Your task to perform on an android device: turn on the 24-hour format for clock Image 0: 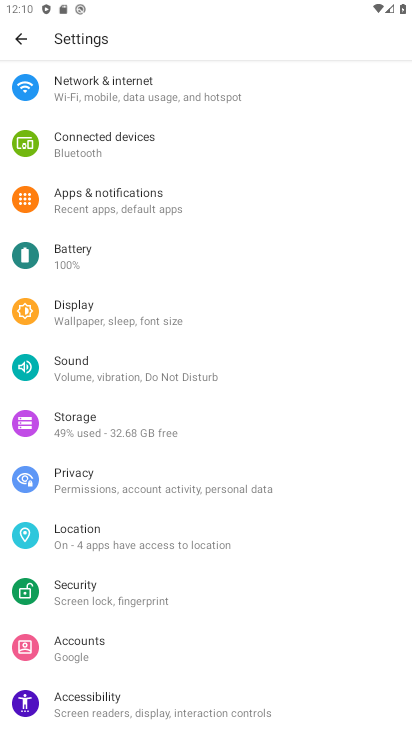
Step 0: press back button
Your task to perform on an android device: turn on the 24-hour format for clock Image 1: 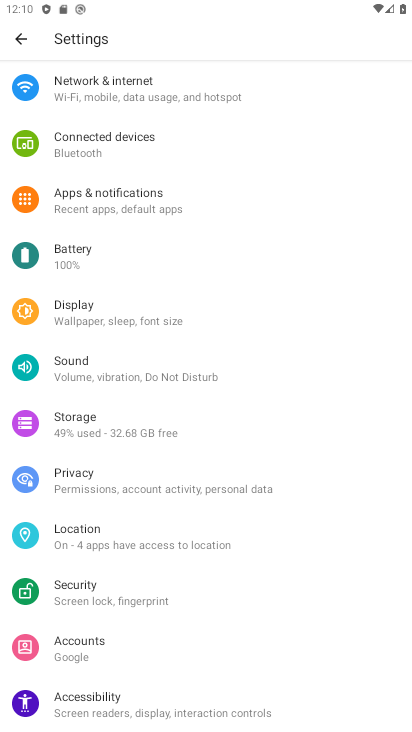
Step 1: press back button
Your task to perform on an android device: turn on the 24-hour format for clock Image 2: 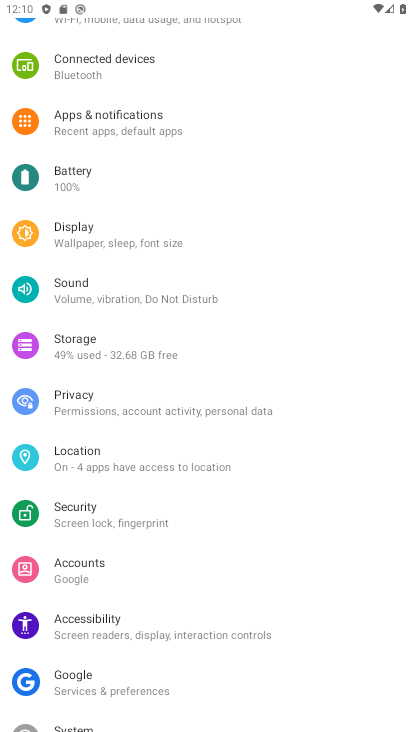
Step 2: press home button
Your task to perform on an android device: turn on the 24-hour format for clock Image 3: 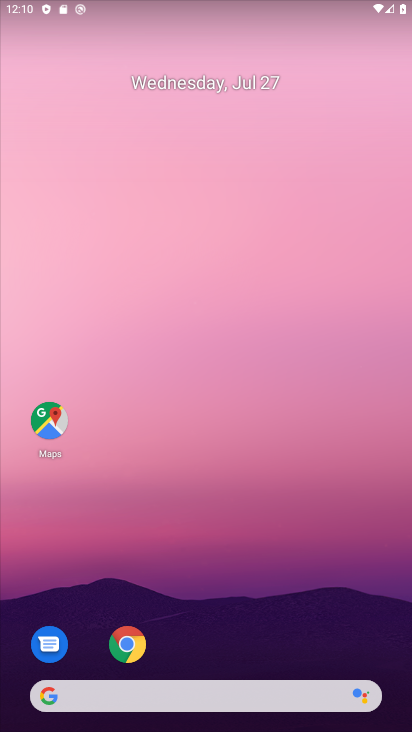
Step 3: drag from (276, 668) to (260, 242)
Your task to perform on an android device: turn on the 24-hour format for clock Image 4: 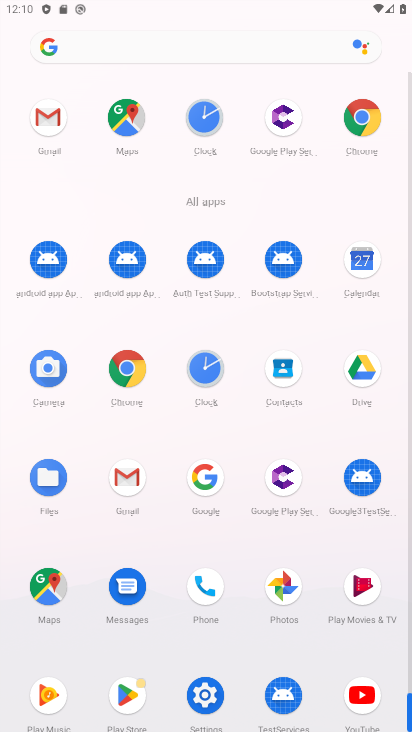
Step 4: click (248, 212)
Your task to perform on an android device: turn on the 24-hour format for clock Image 5: 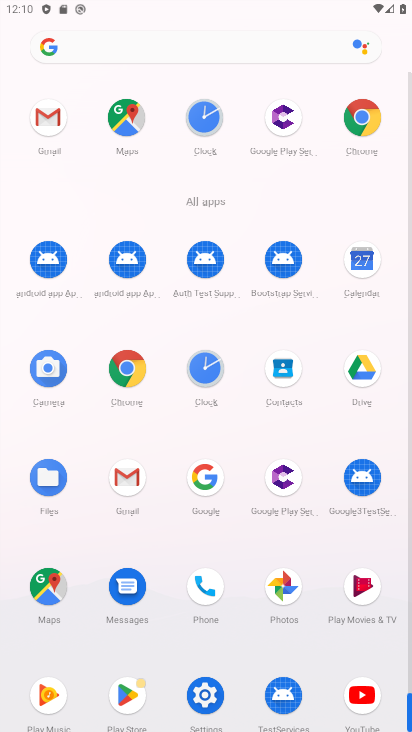
Step 5: click (295, 200)
Your task to perform on an android device: turn on the 24-hour format for clock Image 6: 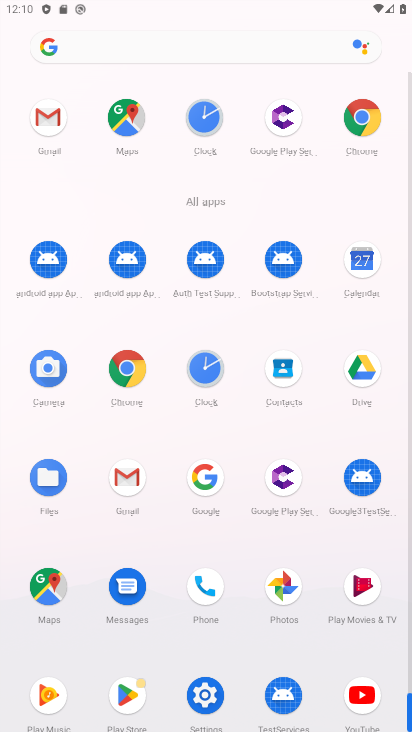
Step 6: click (260, 355)
Your task to perform on an android device: turn on the 24-hour format for clock Image 7: 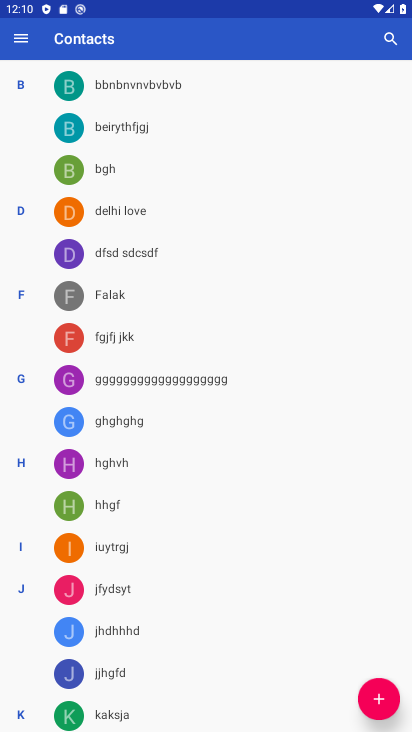
Step 7: press back button
Your task to perform on an android device: turn on the 24-hour format for clock Image 8: 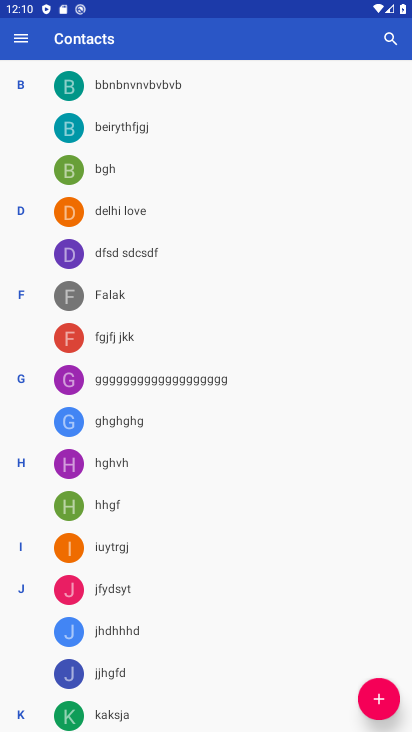
Step 8: press back button
Your task to perform on an android device: turn on the 24-hour format for clock Image 9: 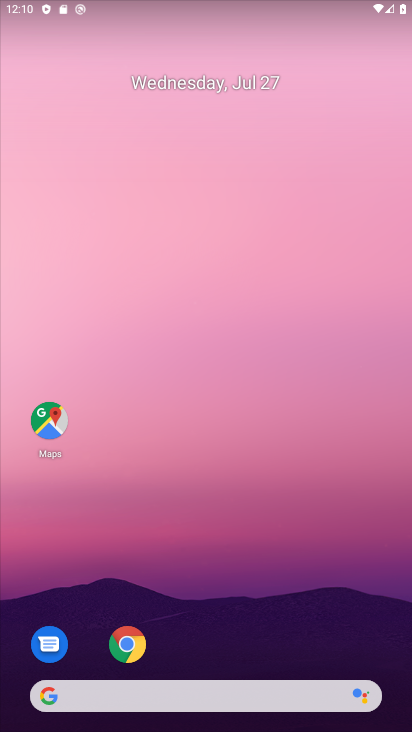
Step 9: drag from (275, 540) to (257, 104)
Your task to perform on an android device: turn on the 24-hour format for clock Image 10: 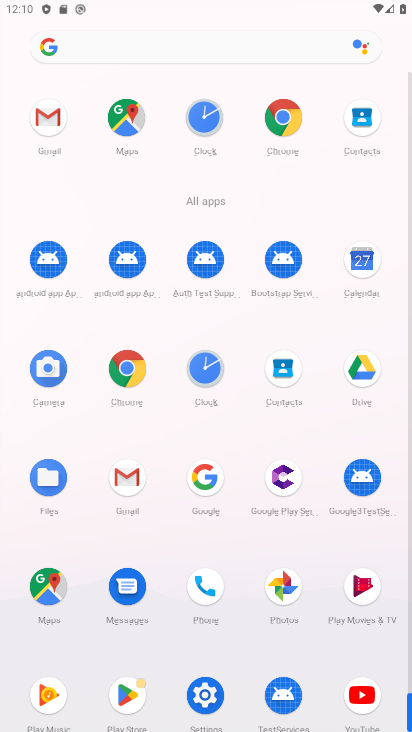
Step 10: drag from (270, 410) to (259, 195)
Your task to perform on an android device: turn on the 24-hour format for clock Image 11: 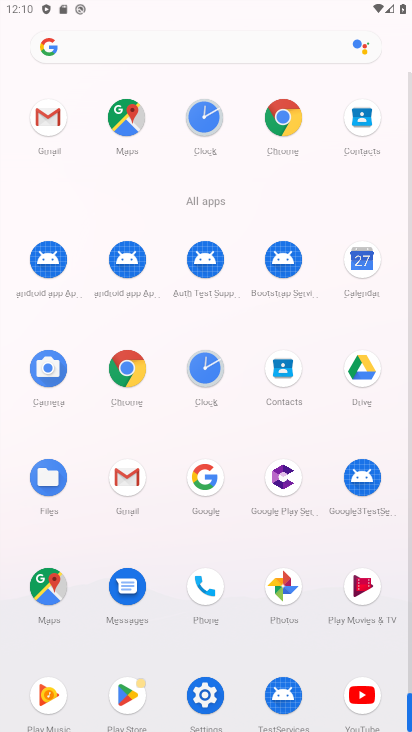
Step 11: click (211, 357)
Your task to perform on an android device: turn on the 24-hour format for clock Image 12: 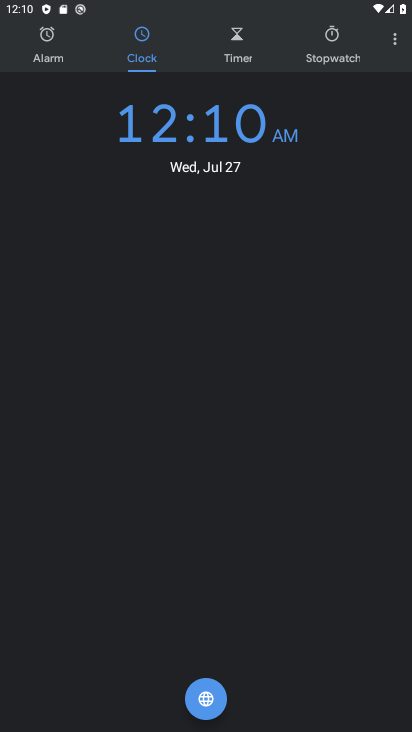
Step 12: click (215, 365)
Your task to perform on an android device: turn on the 24-hour format for clock Image 13: 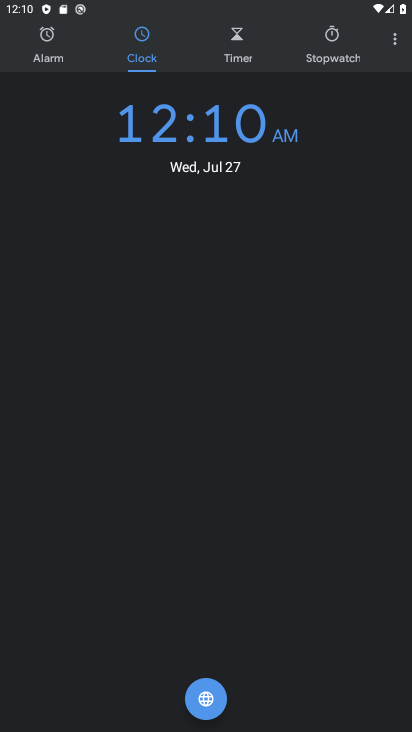
Step 13: drag from (397, 35) to (277, 250)
Your task to perform on an android device: turn on the 24-hour format for clock Image 14: 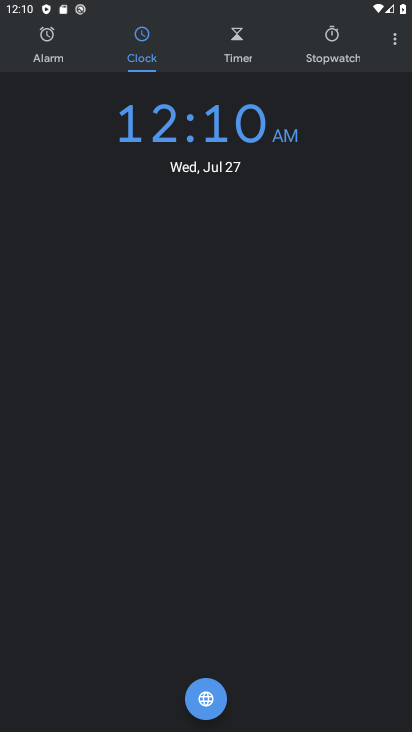
Step 14: click (389, 26)
Your task to perform on an android device: turn on the 24-hour format for clock Image 15: 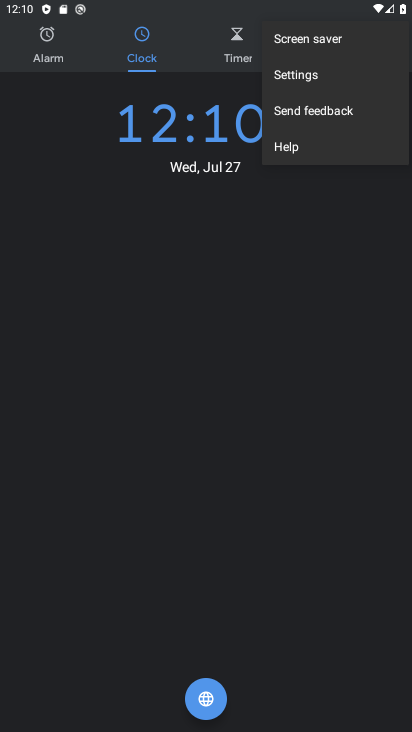
Step 15: click (293, 71)
Your task to perform on an android device: turn on the 24-hour format for clock Image 16: 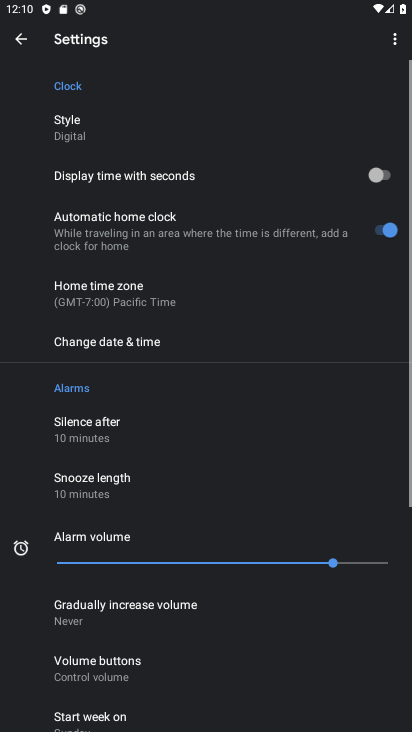
Step 16: click (274, 64)
Your task to perform on an android device: turn on the 24-hour format for clock Image 17: 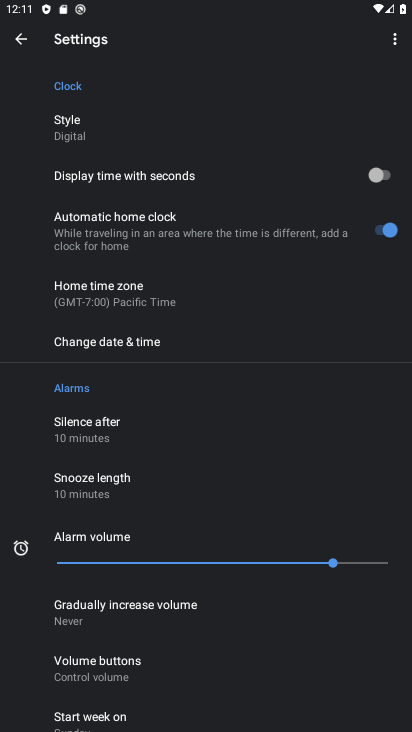
Step 17: click (112, 349)
Your task to perform on an android device: turn on the 24-hour format for clock Image 18: 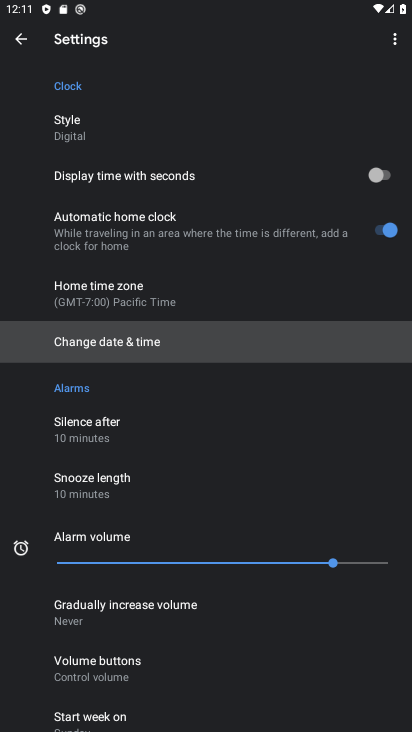
Step 18: click (113, 347)
Your task to perform on an android device: turn on the 24-hour format for clock Image 19: 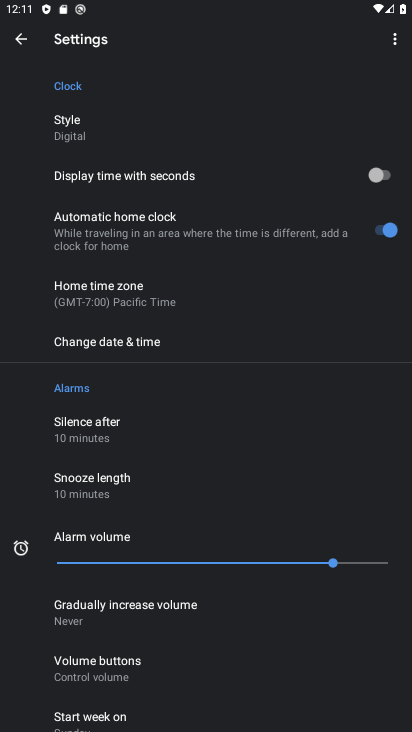
Step 19: click (115, 347)
Your task to perform on an android device: turn on the 24-hour format for clock Image 20: 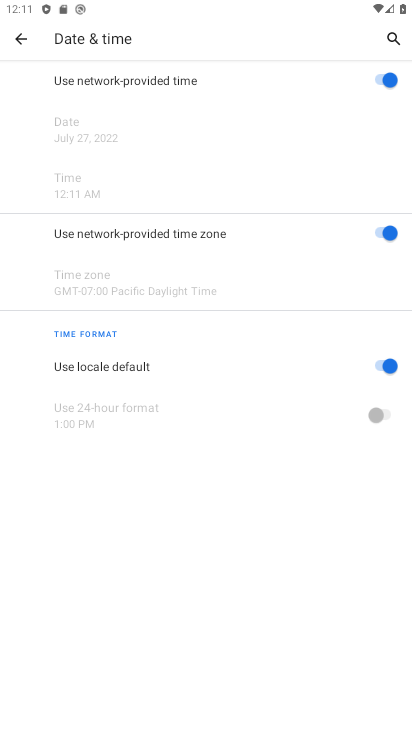
Step 20: click (376, 405)
Your task to perform on an android device: turn on the 24-hour format for clock Image 21: 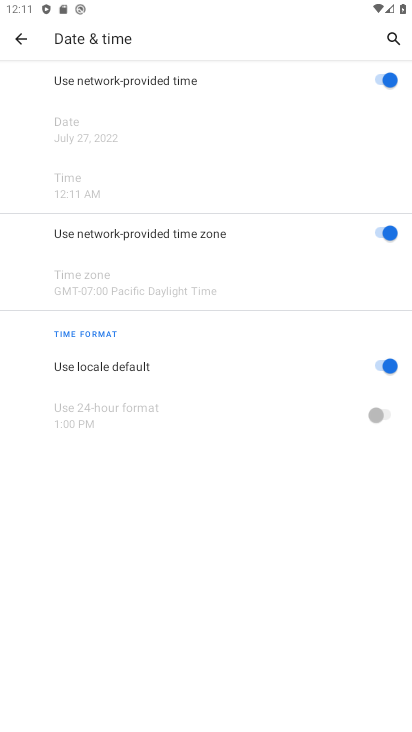
Step 21: click (384, 357)
Your task to perform on an android device: turn on the 24-hour format for clock Image 22: 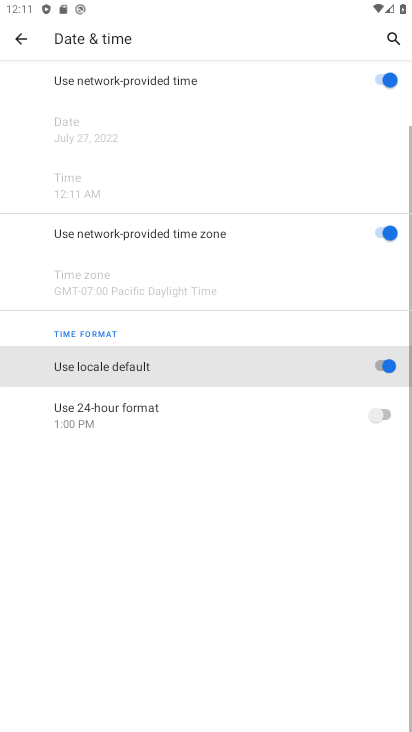
Step 22: click (377, 409)
Your task to perform on an android device: turn on the 24-hour format for clock Image 23: 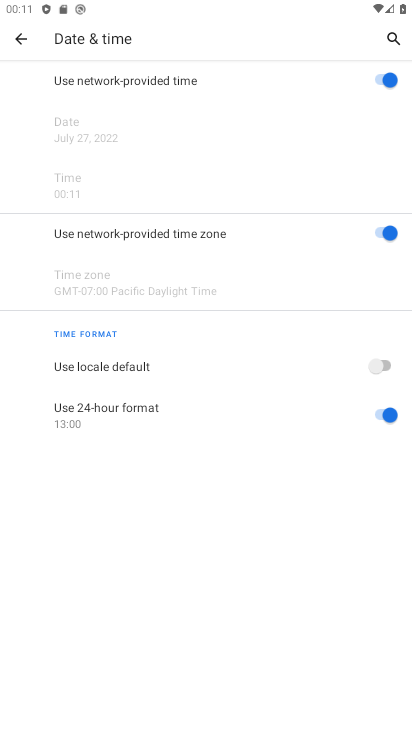
Step 23: task complete